Your task to perform on an android device: allow notifications from all sites in the chrome app Image 0: 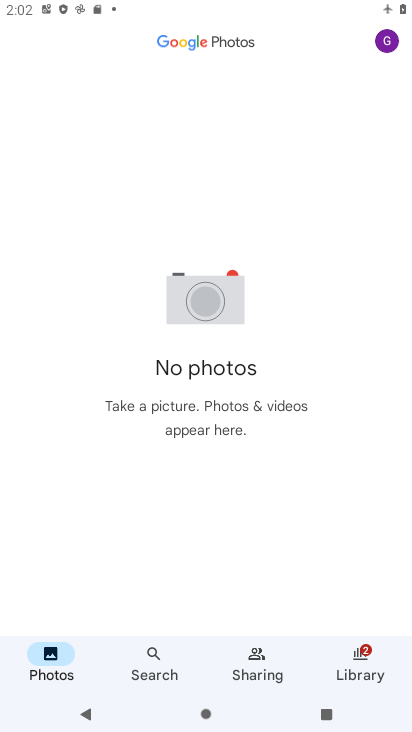
Step 0: press home button
Your task to perform on an android device: allow notifications from all sites in the chrome app Image 1: 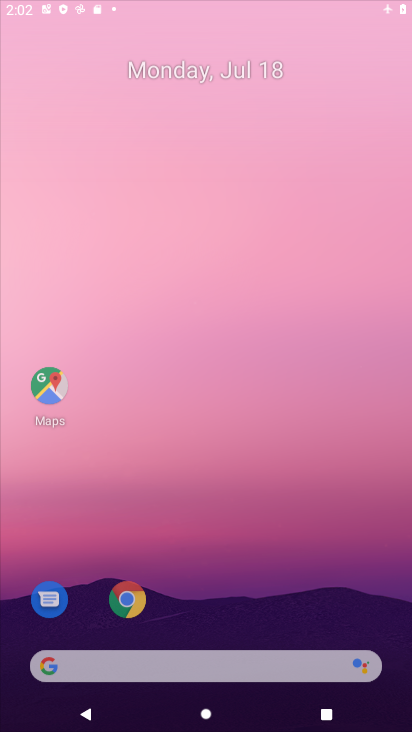
Step 1: drag from (362, 629) to (244, 15)
Your task to perform on an android device: allow notifications from all sites in the chrome app Image 2: 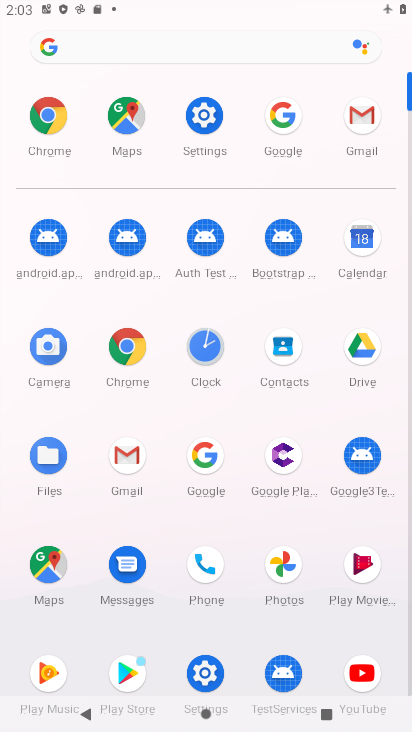
Step 2: click (35, 127)
Your task to perform on an android device: allow notifications from all sites in the chrome app Image 3: 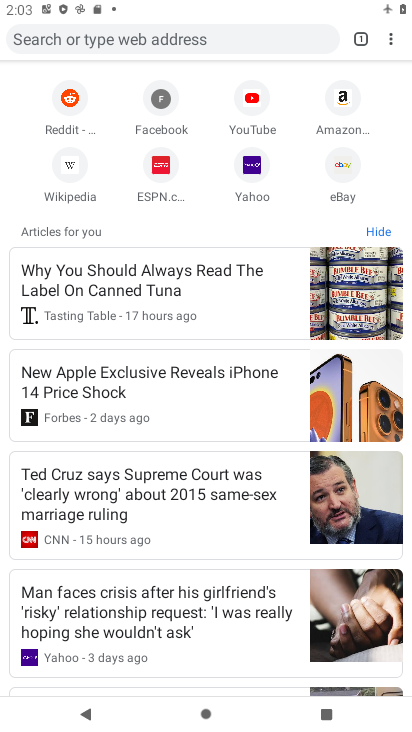
Step 3: click (393, 39)
Your task to perform on an android device: allow notifications from all sites in the chrome app Image 4: 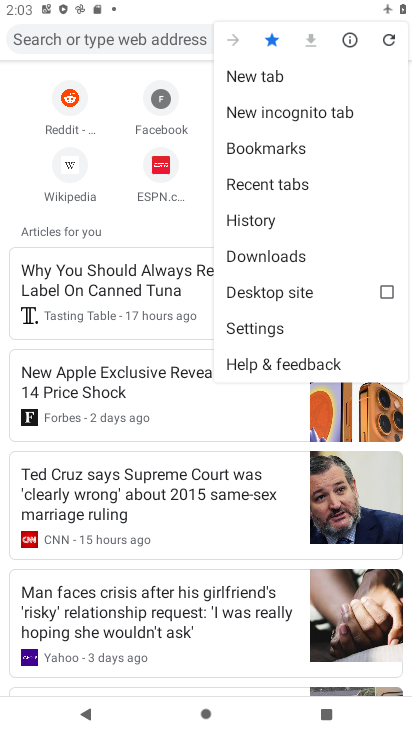
Step 4: click (255, 329)
Your task to perform on an android device: allow notifications from all sites in the chrome app Image 5: 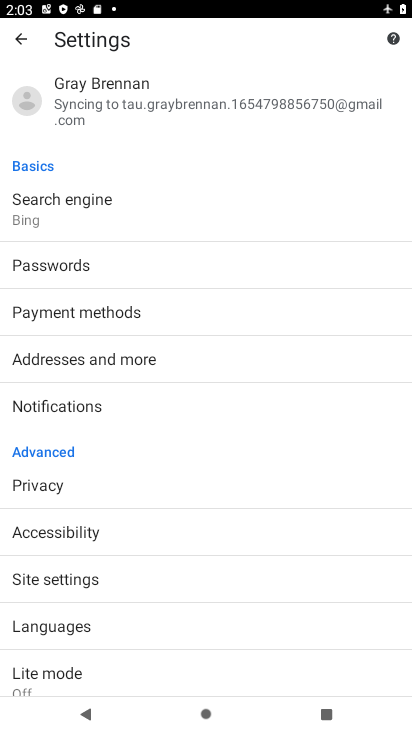
Step 5: click (69, 404)
Your task to perform on an android device: allow notifications from all sites in the chrome app Image 6: 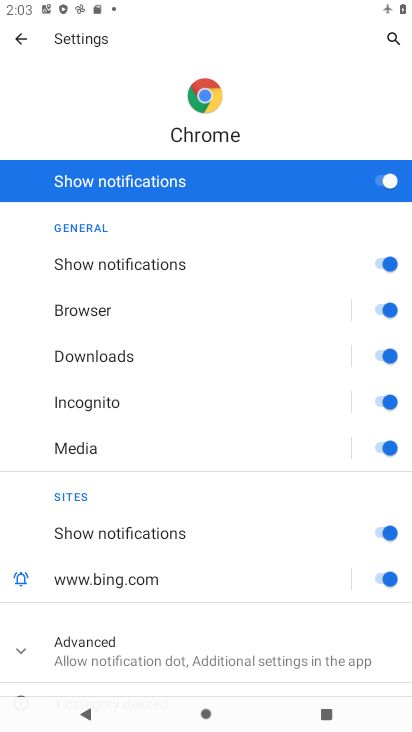
Step 6: task complete